Your task to perform on an android device: toggle priority inbox in the gmail app Image 0: 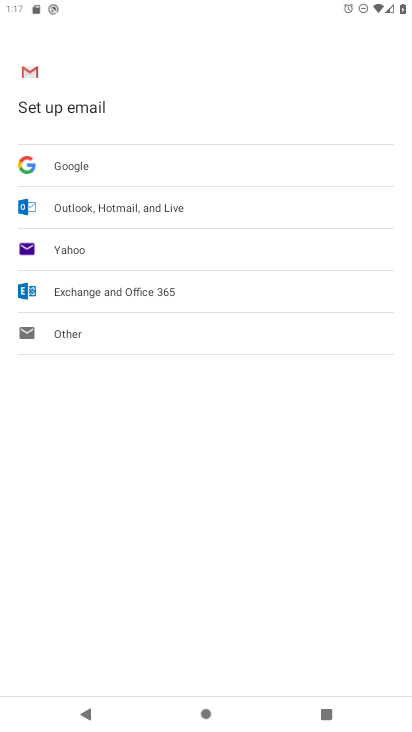
Step 0: press home button
Your task to perform on an android device: toggle priority inbox in the gmail app Image 1: 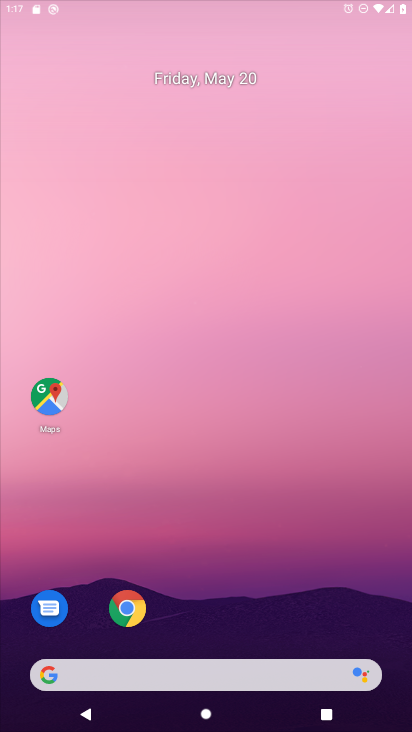
Step 1: drag from (325, 610) to (354, 11)
Your task to perform on an android device: toggle priority inbox in the gmail app Image 2: 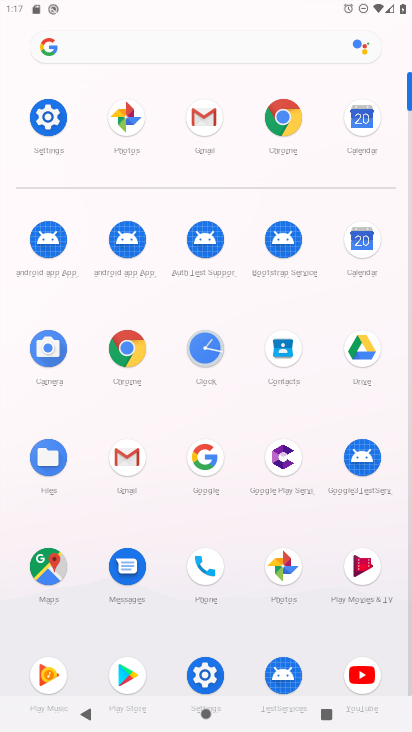
Step 2: click (214, 116)
Your task to perform on an android device: toggle priority inbox in the gmail app Image 3: 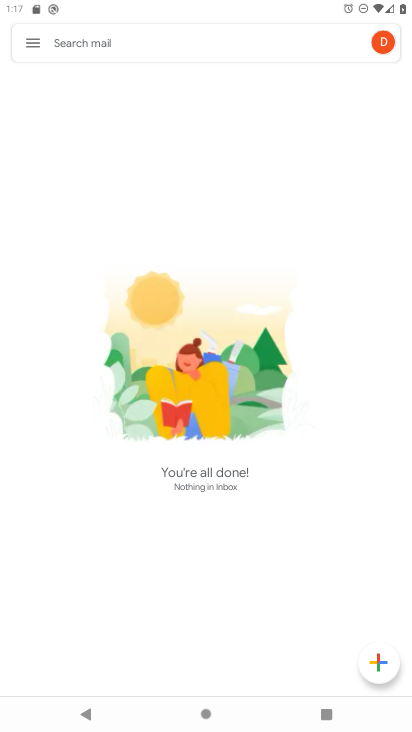
Step 3: click (34, 38)
Your task to perform on an android device: toggle priority inbox in the gmail app Image 4: 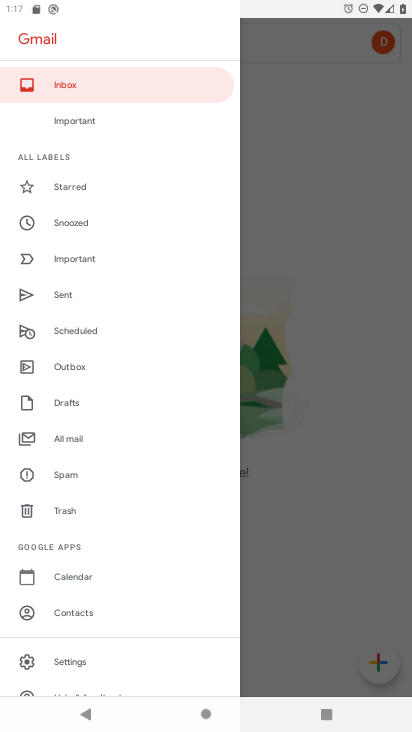
Step 4: click (96, 656)
Your task to perform on an android device: toggle priority inbox in the gmail app Image 5: 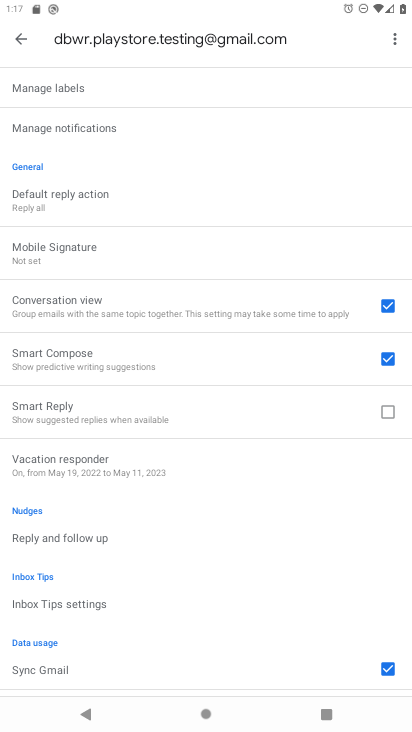
Step 5: click (21, 42)
Your task to perform on an android device: toggle priority inbox in the gmail app Image 6: 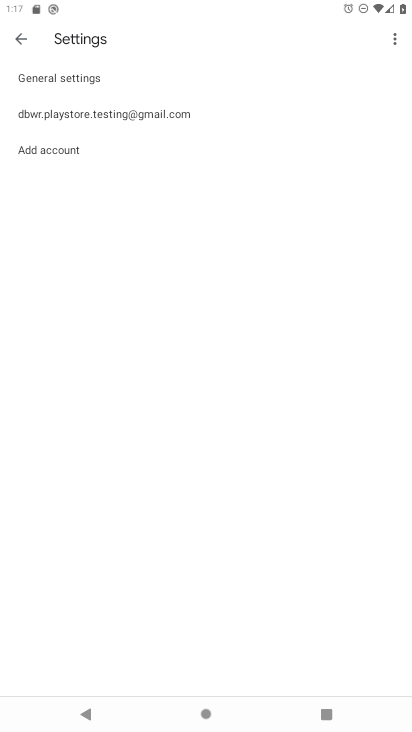
Step 6: click (200, 114)
Your task to perform on an android device: toggle priority inbox in the gmail app Image 7: 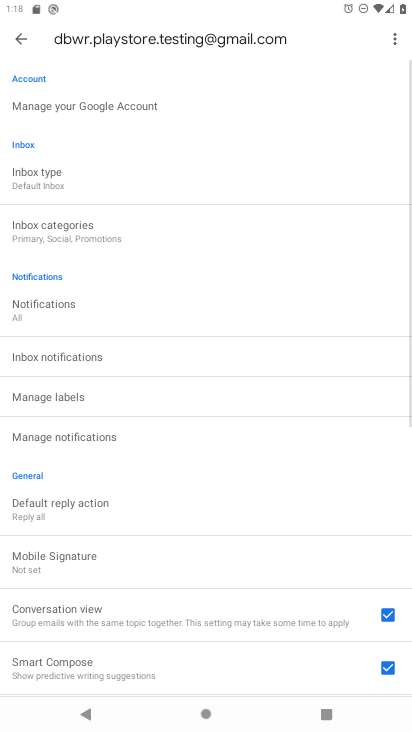
Step 7: click (41, 183)
Your task to perform on an android device: toggle priority inbox in the gmail app Image 8: 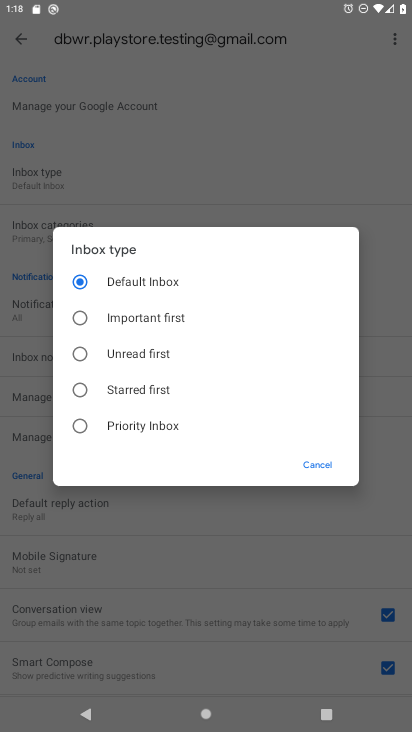
Step 8: click (78, 423)
Your task to perform on an android device: toggle priority inbox in the gmail app Image 9: 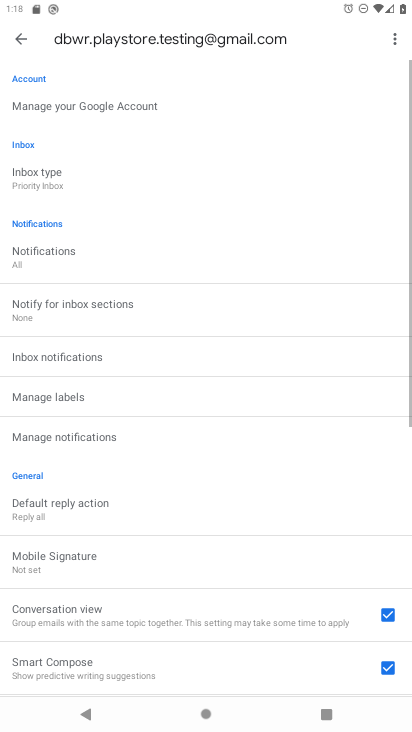
Step 9: task complete